Your task to perform on an android device: turn off data saver in the chrome app Image 0: 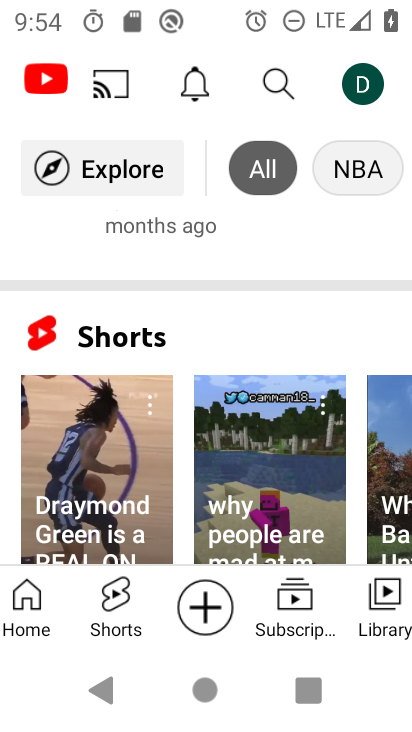
Step 0: press home button
Your task to perform on an android device: turn off data saver in the chrome app Image 1: 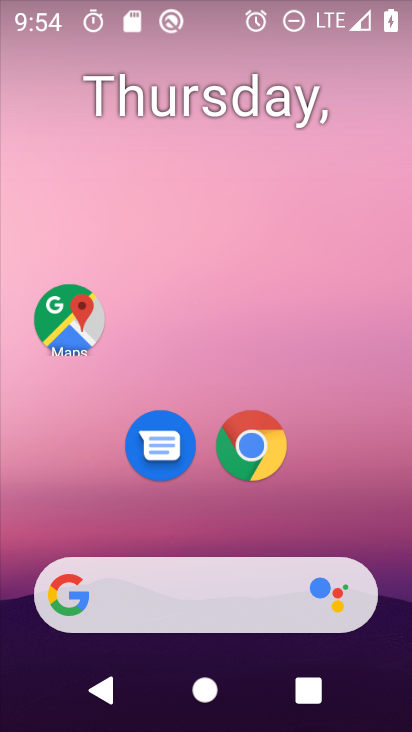
Step 1: click (251, 452)
Your task to perform on an android device: turn off data saver in the chrome app Image 2: 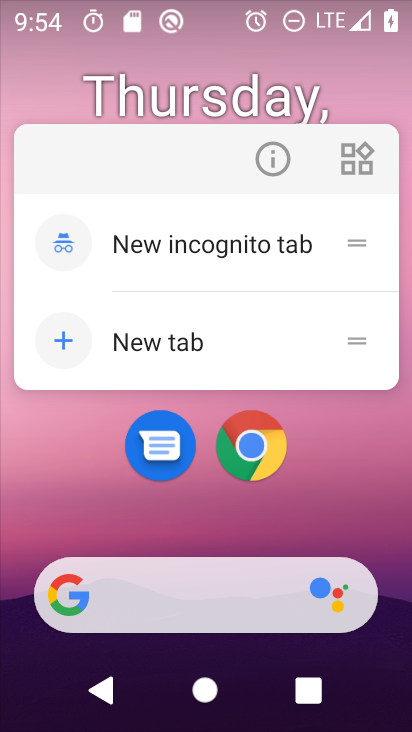
Step 2: click (271, 149)
Your task to perform on an android device: turn off data saver in the chrome app Image 3: 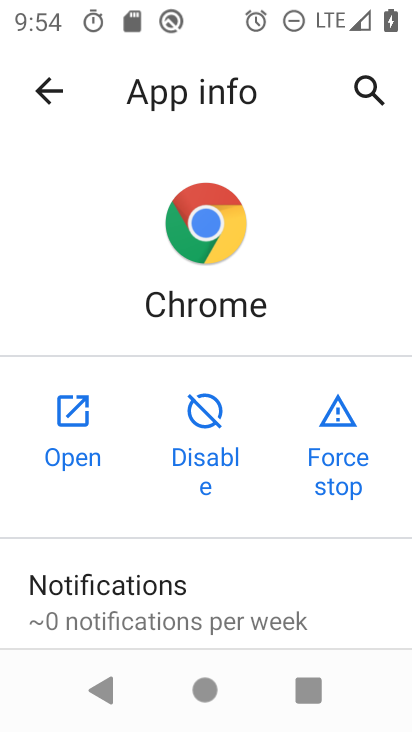
Step 3: click (114, 410)
Your task to perform on an android device: turn off data saver in the chrome app Image 4: 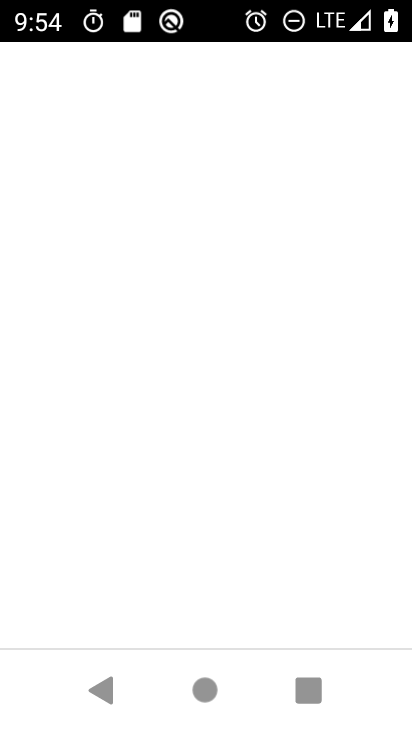
Step 4: click (86, 410)
Your task to perform on an android device: turn off data saver in the chrome app Image 5: 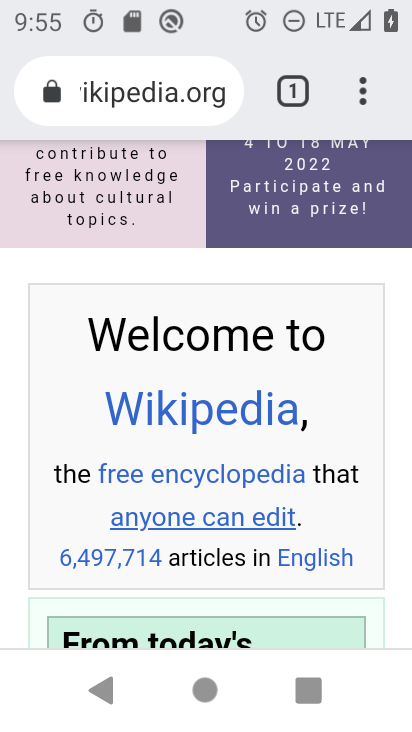
Step 5: drag from (277, 587) to (277, 354)
Your task to perform on an android device: turn off data saver in the chrome app Image 6: 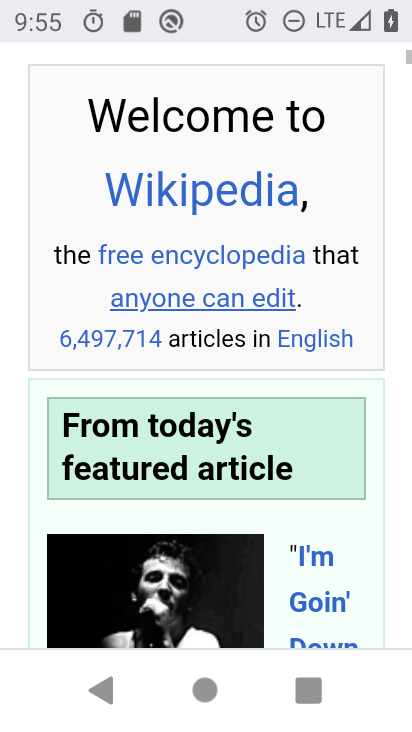
Step 6: drag from (262, 262) to (326, 651)
Your task to perform on an android device: turn off data saver in the chrome app Image 7: 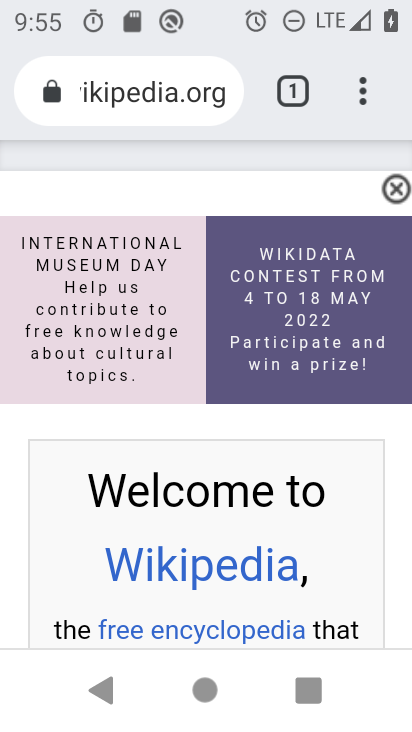
Step 7: drag from (370, 102) to (171, 481)
Your task to perform on an android device: turn off data saver in the chrome app Image 8: 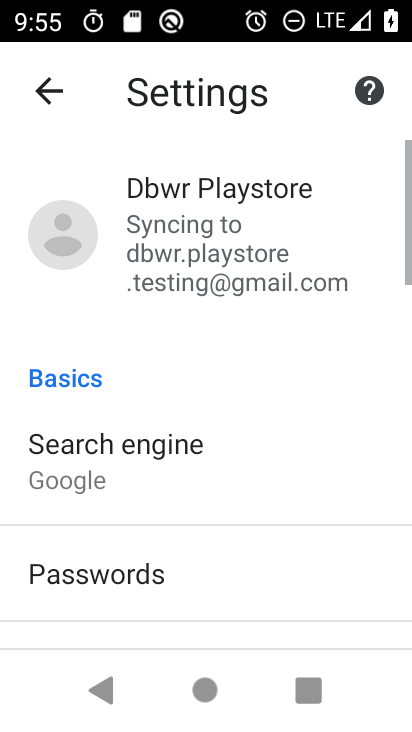
Step 8: drag from (214, 513) to (276, 162)
Your task to perform on an android device: turn off data saver in the chrome app Image 9: 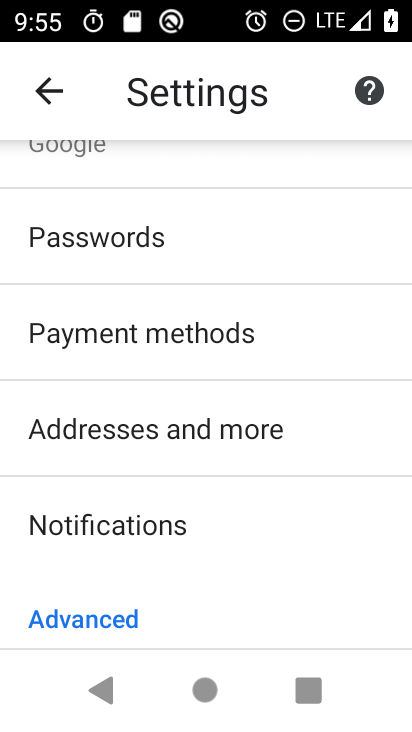
Step 9: drag from (189, 602) to (237, 224)
Your task to perform on an android device: turn off data saver in the chrome app Image 10: 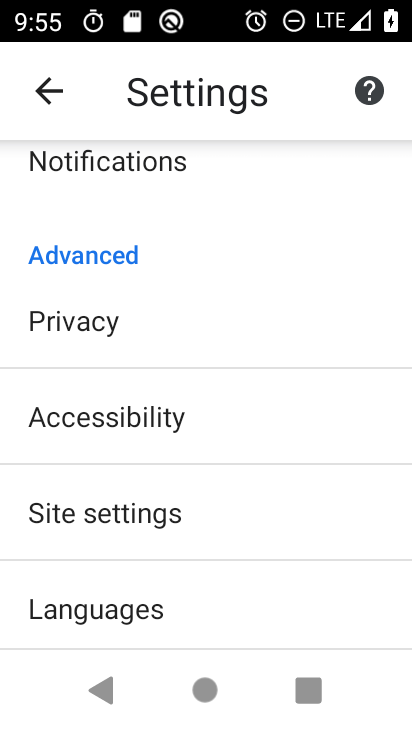
Step 10: click (186, 494)
Your task to perform on an android device: turn off data saver in the chrome app Image 11: 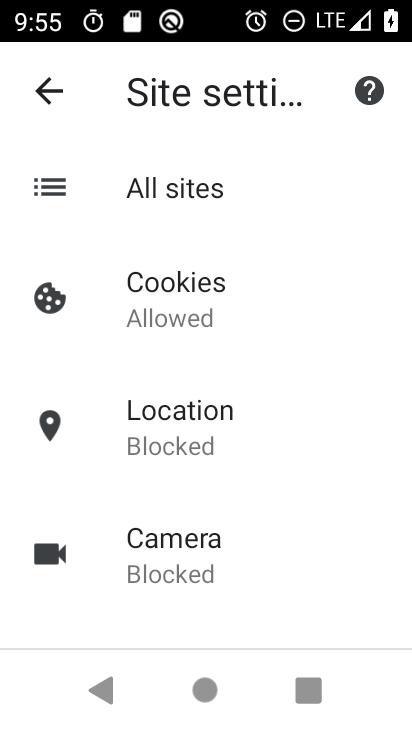
Step 11: drag from (243, 496) to (268, 186)
Your task to perform on an android device: turn off data saver in the chrome app Image 12: 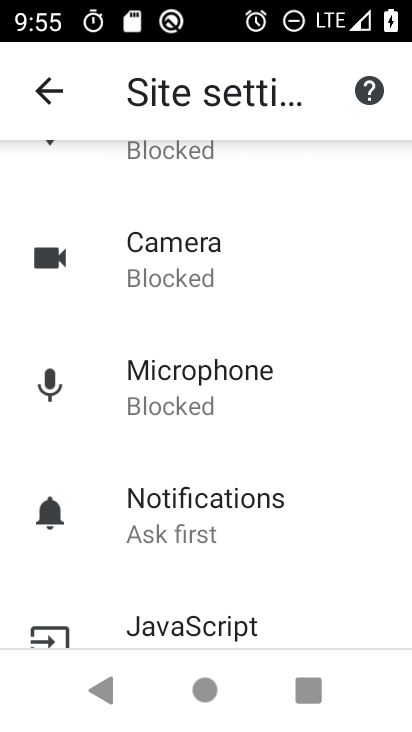
Step 12: drag from (189, 522) to (234, 155)
Your task to perform on an android device: turn off data saver in the chrome app Image 13: 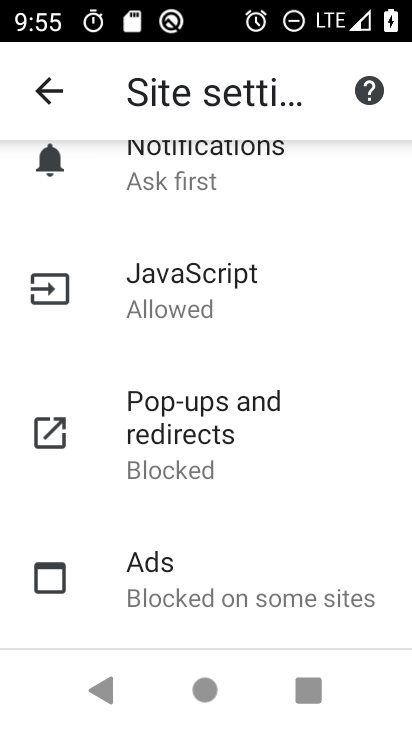
Step 13: drag from (168, 307) to (229, 484)
Your task to perform on an android device: turn off data saver in the chrome app Image 14: 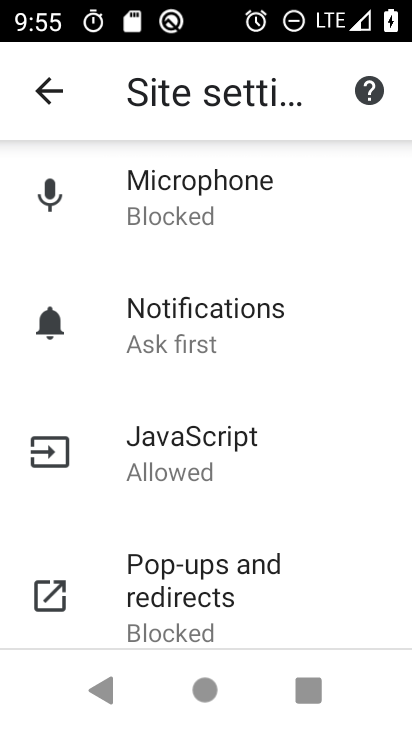
Step 14: click (53, 82)
Your task to perform on an android device: turn off data saver in the chrome app Image 15: 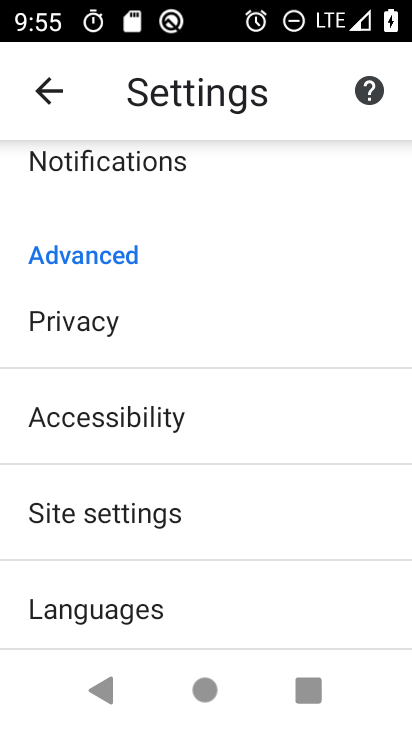
Step 15: drag from (212, 562) to (240, 227)
Your task to perform on an android device: turn off data saver in the chrome app Image 16: 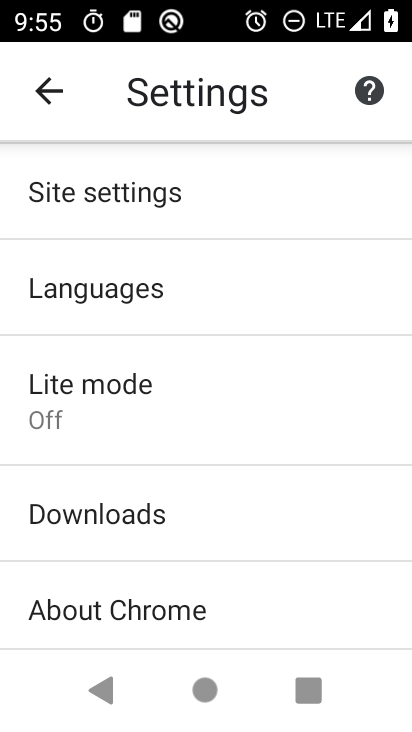
Step 16: click (185, 432)
Your task to perform on an android device: turn off data saver in the chrome app Image 17: 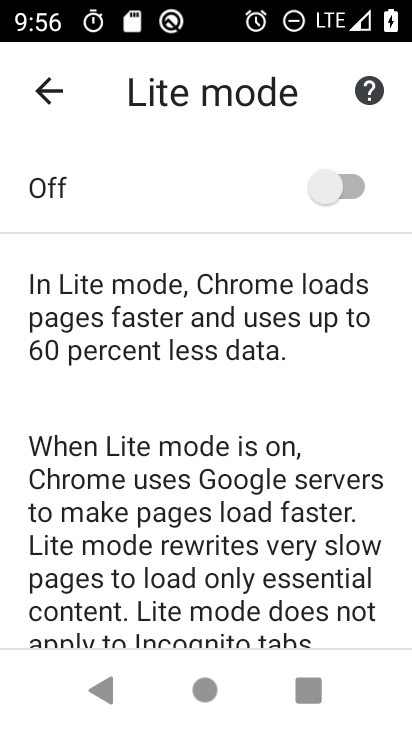
Step 17: task complete